Your task to perform on an android device: add a contact in the contacts app Image 0: 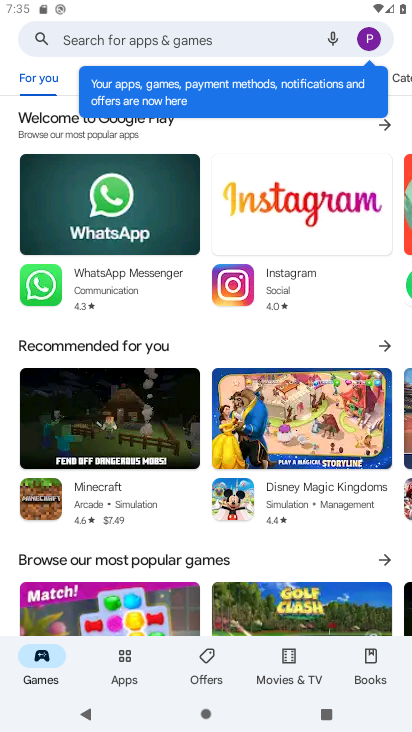
Step 0: press home button
Your task to perform on an android device: add a contact in the contacts app Image 1: 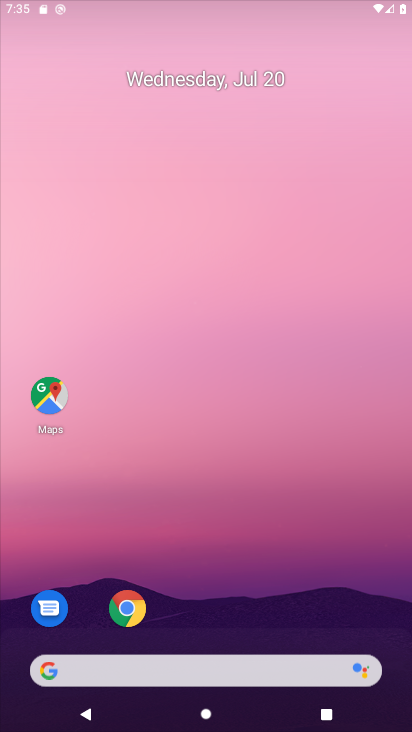
Step 1: drag from (179, 654) to (233, 27)
Your task to perform on an android device: add a contact in the contacts app Image 2: 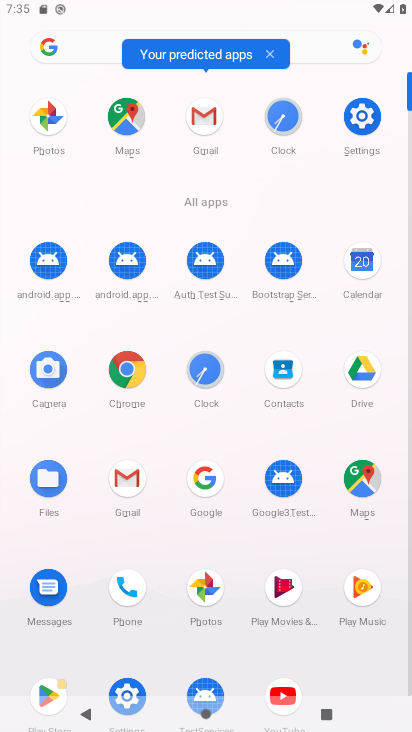
Step 2: click (116, 594)
Your task to perform on an android device: add a contact in the contacts app Image 3: 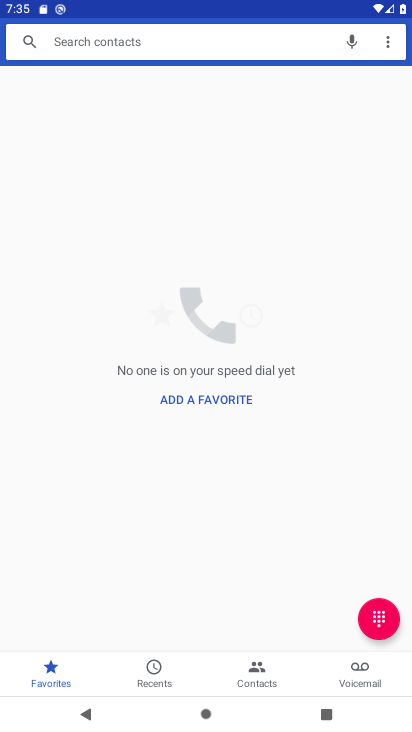
Step 3: click (191, 399)
Your task to perform on an android device: add a contact in the contacts app Image 4: 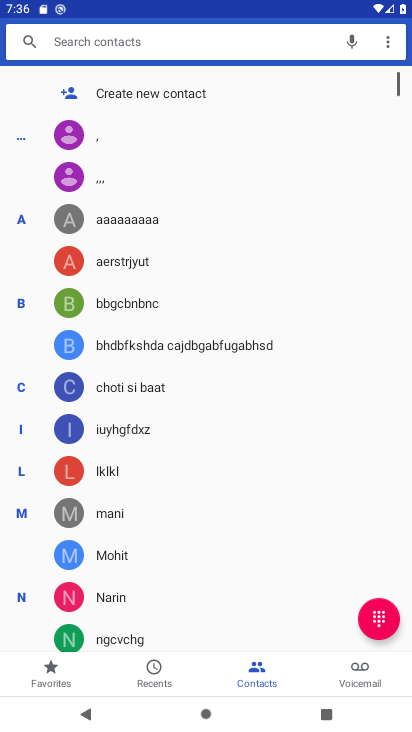
Step 4: click (159, 83)
Your task to perform on an android device: add a contact in the contacts app Image 5: 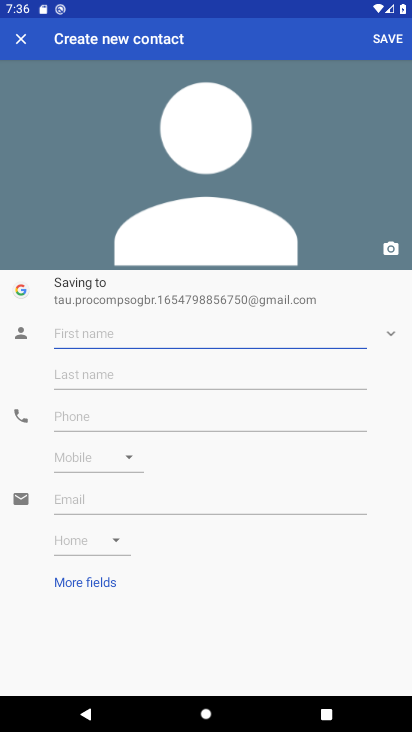
Step 5: click (141, 327)
Your task to perform on an android device: add a contact in the contacts app Image 6: 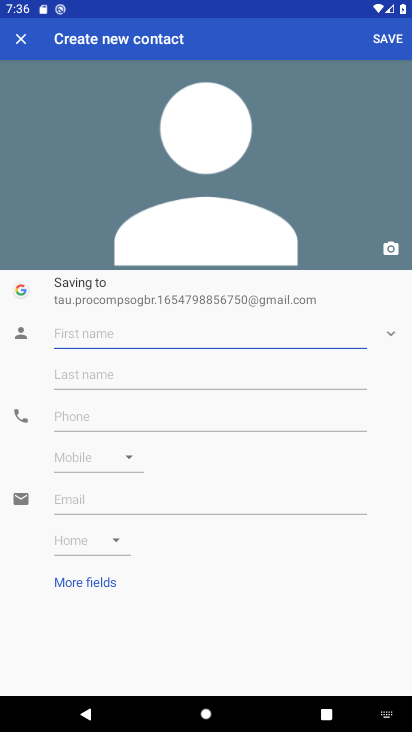
Step 6: type "sssssssssssssssssssss "
Your task to perform on an android device: add a contact in the contacts app Image 7: 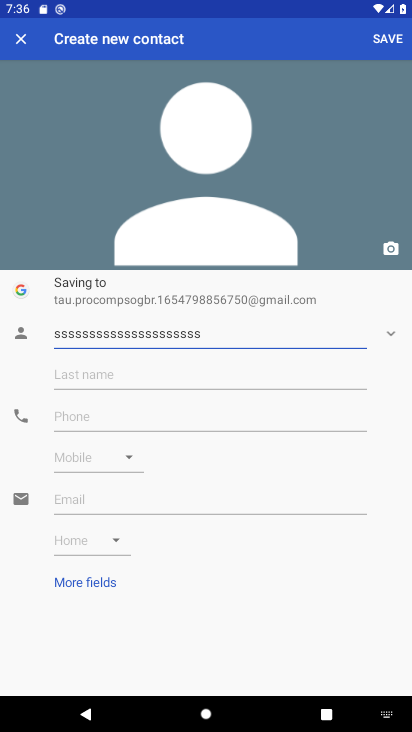
Step 7: click (114, 410)
Your task to perform on an android device: add a contact in the contacts app Image 8: 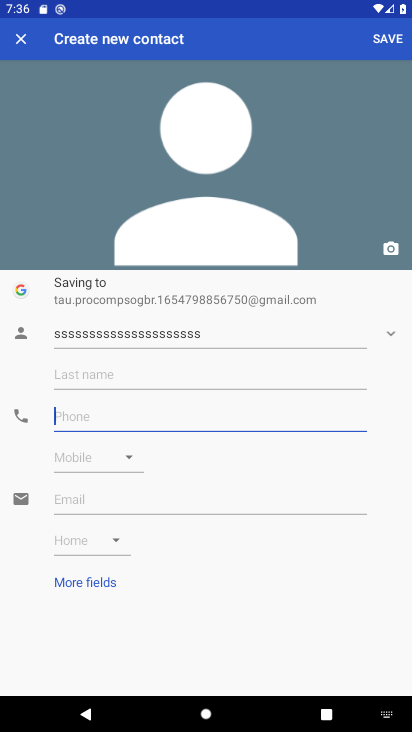
Step 8: type "33333333333333333333 "
Your task to perform on an android device: add a contact in the contacts app Image 9: 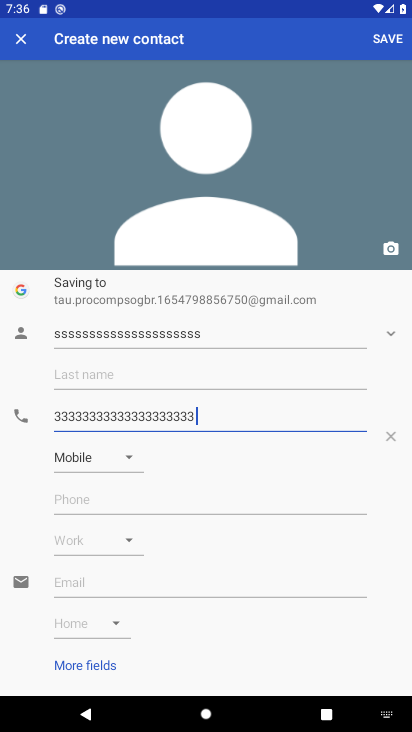
Step 9: click (399, 41)
Your task to perform on an android device: add a contact in the contacts app Image 10: 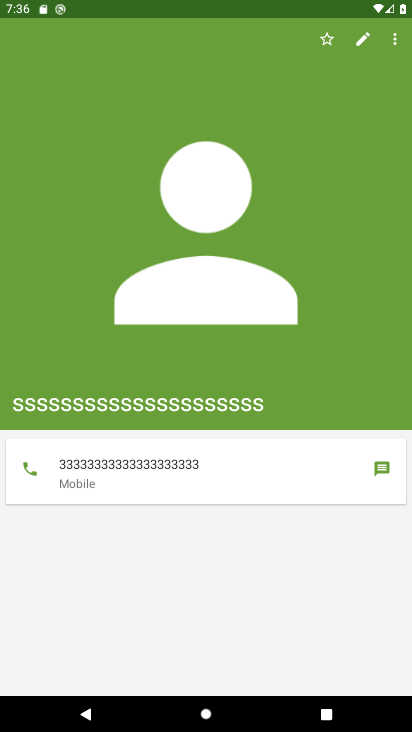
Step 10: task complete